Your task to perform on an android device: allow cookies in the chrome app Image 0: 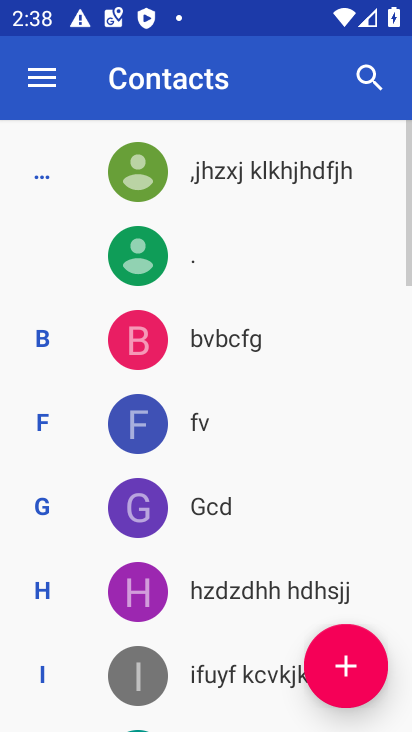
Step 0: press home button
Your task to perform on an android device: allow cookies in the chrome app Image 1: 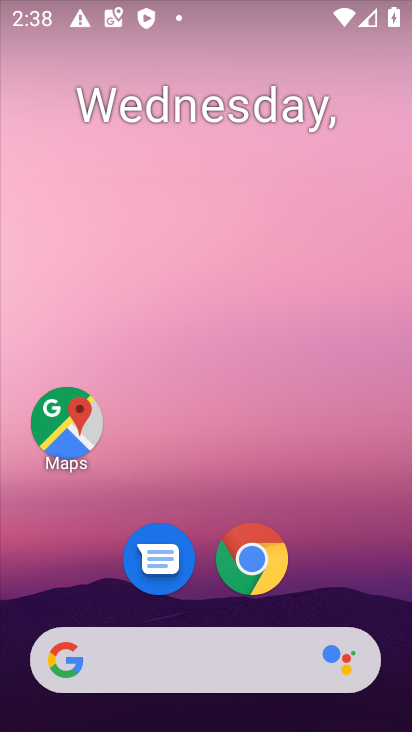
Step 1: click (247, 557)
Your task to perform on an android device: allow cookies in the chrome app Image 2: 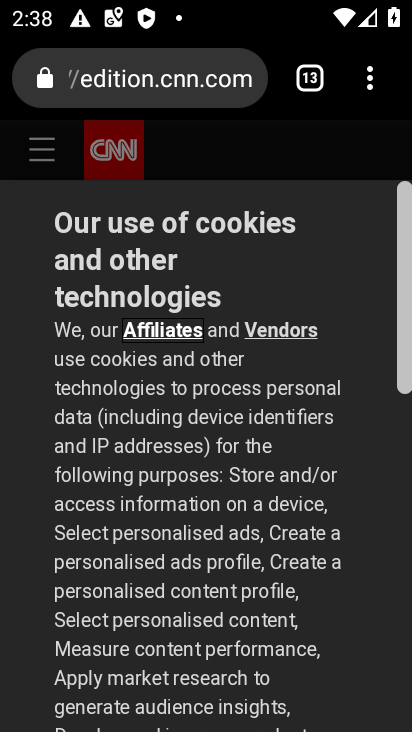
Step 2: click (371, 87)
Your task to perform on an android device: allow cookies in the chrome app Image 3: 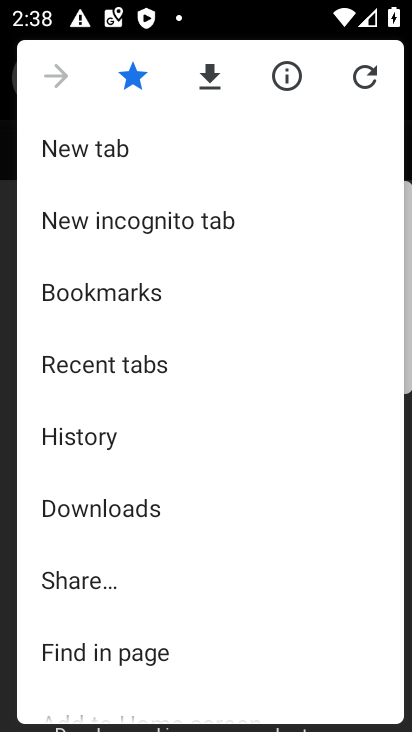
Step 3: drag from (81, 612) to (114, 209)
Your task to perform on an android device: allow cookies in the chrome app Image 4: 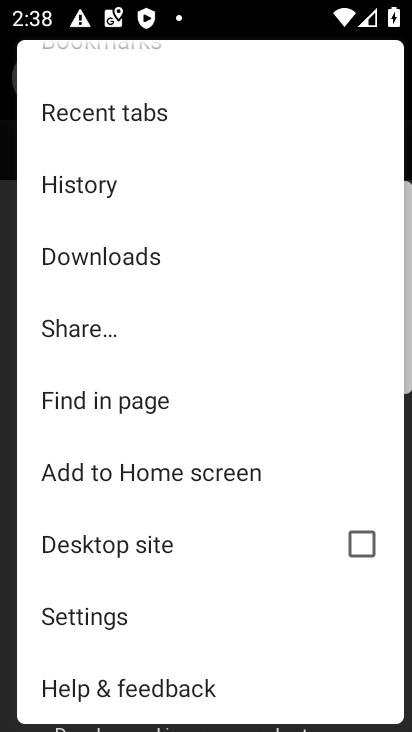
Step 4: click (89, 615)
Your task to perform on an android device: allow cookies in the chrome app Image 5: 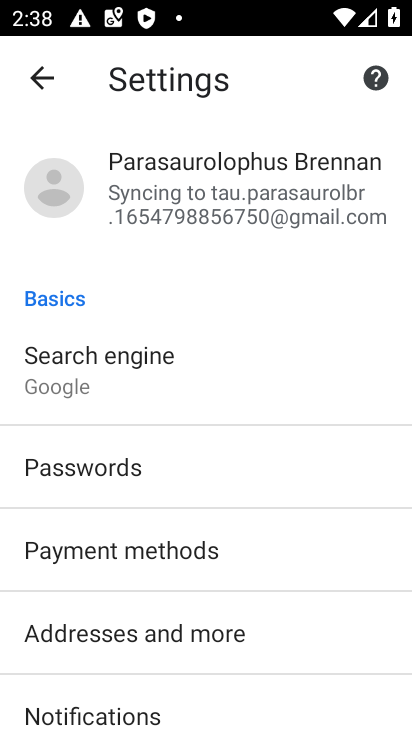
Step 5: drag from (151, 663) to (181, 371)
Your task to perform on an android device: allow cookies in the chrome app Image 6: 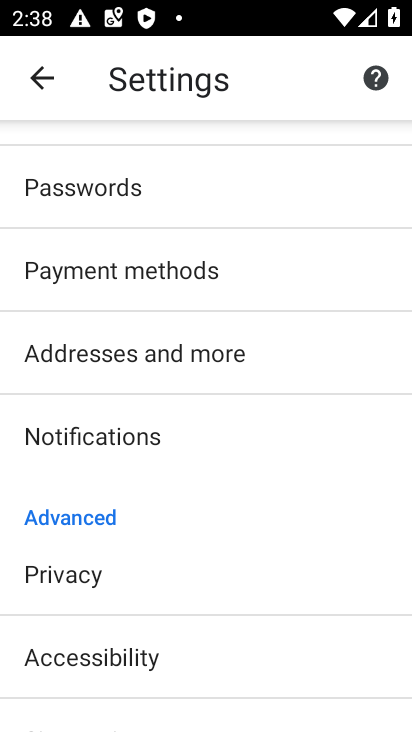
Step 6: drag from (159, 602) to (167, 321)
Your task to perform on an android device: allow cookies in the chrome app Image 7: 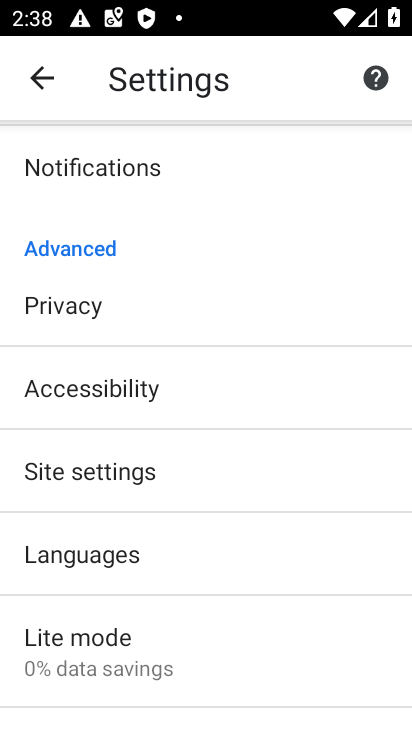
Step 7: drag from (135, 619) to (139, 458)
Your task to perform on an android device: allow cookies in the chrome app Image 8: 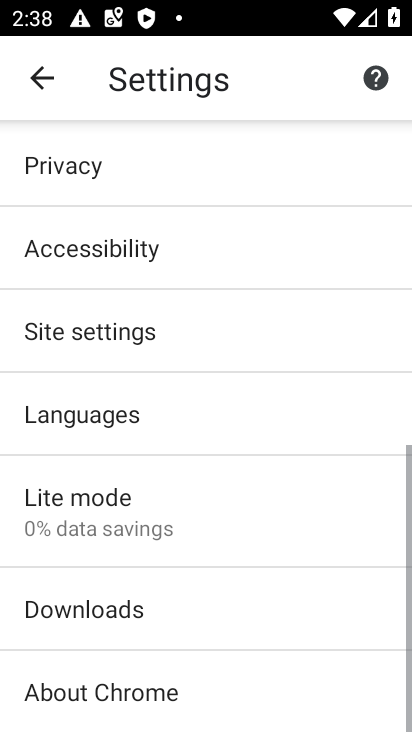
Step 8: click (103, 330)
Your task to perform on an android device: allow cookies in the chrome app Image 9: 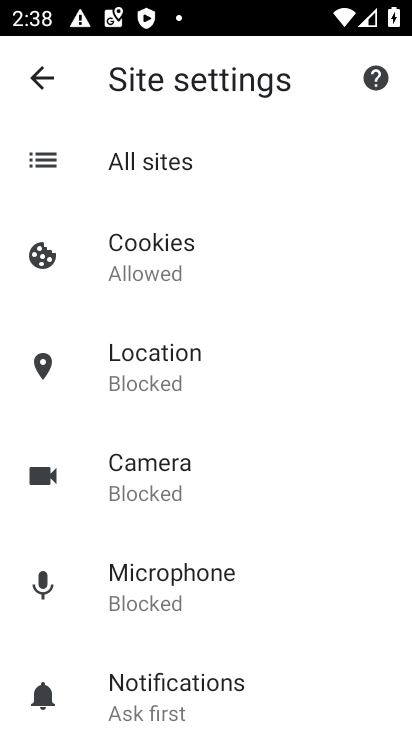
Step 9: drag from (172, 683) to (166, 593)
Your task to perform on an android device: allow cookies in the chrome app Image 10: 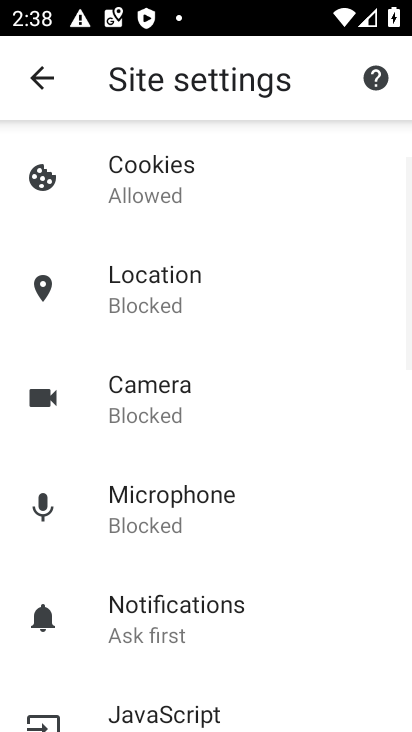
Step 10: click (141, 189)
Your task to perform on an android device: allow cookies in the chrome app Image 11: 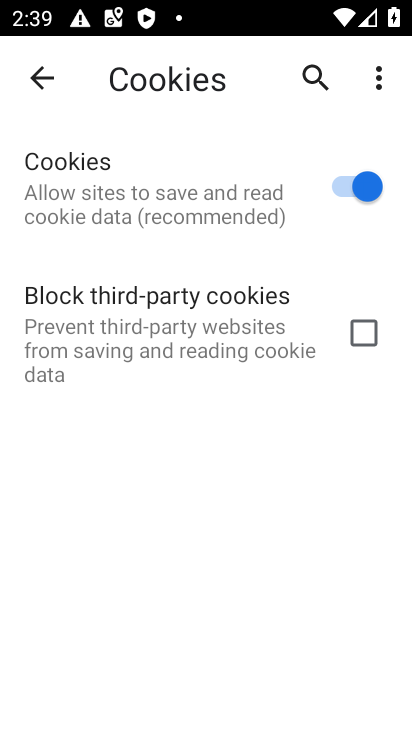
Step 11: task complete